Your task to perform on an android device: open chrome privacy settings Image 0: 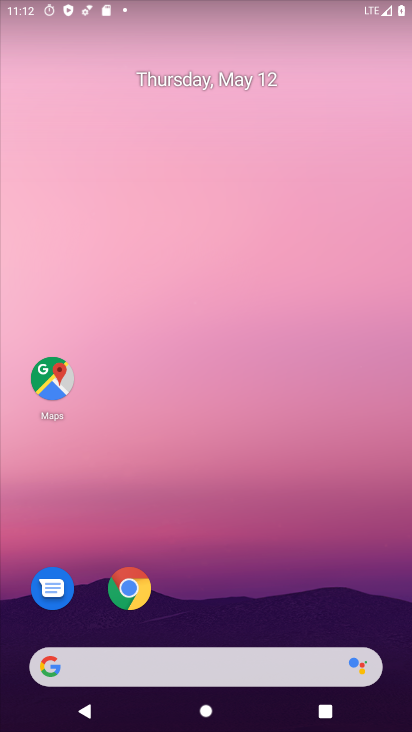
Step 0: drag from (289, 579) to (295, 61)
Your task to perform on an android device: open chrome privacy settings Image 1: 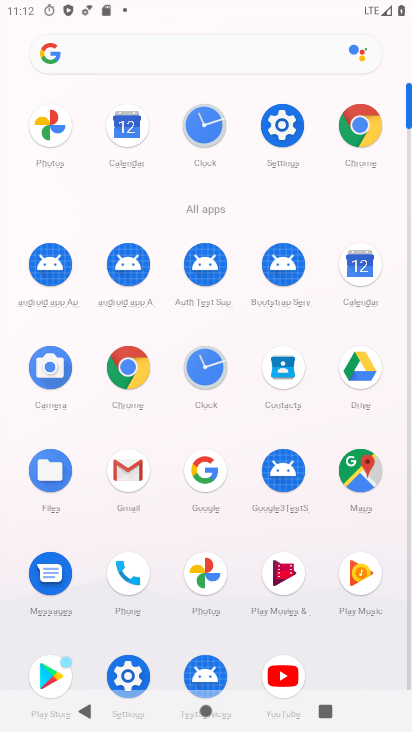
Step 1: click (280, 122)
Your task to perform on an android device: open chrome privacy settings Image 2: 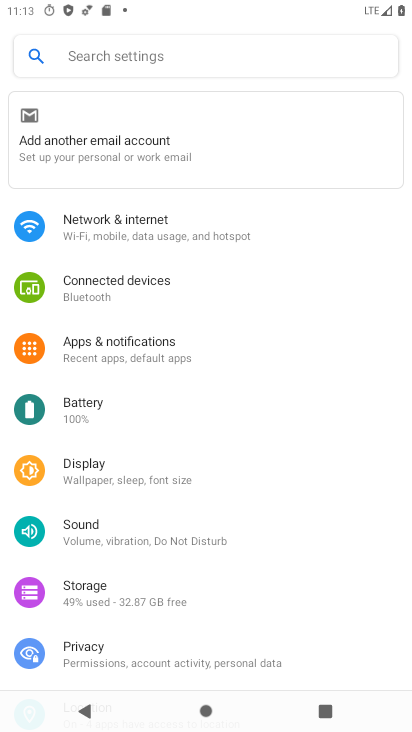
Step 2: drag from (235, 578) to (293, 103)
Your task to perform on an android device: open chrome privacy settings Image 3: 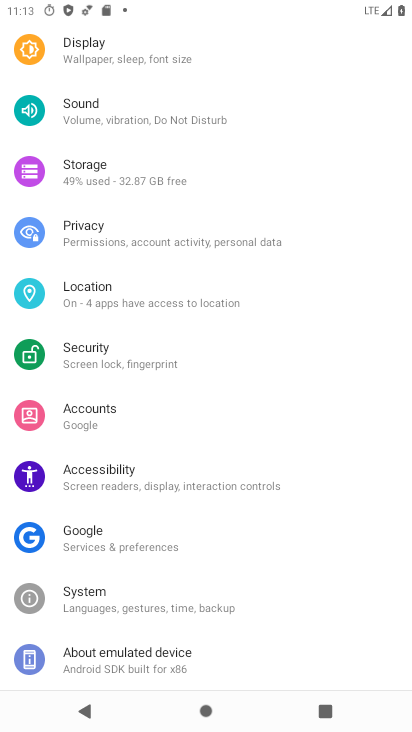
Step 3: drag from (175, 180) to (200, 563)
Your task to perform on an android device: open chrome privacy settings Image 4: 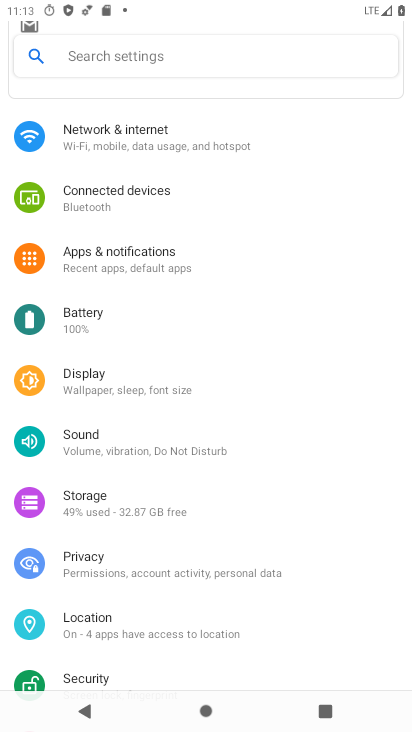
Step 4: click (123, 243)
Your task to perform on an android device: open chrome privacy settings Image 5: 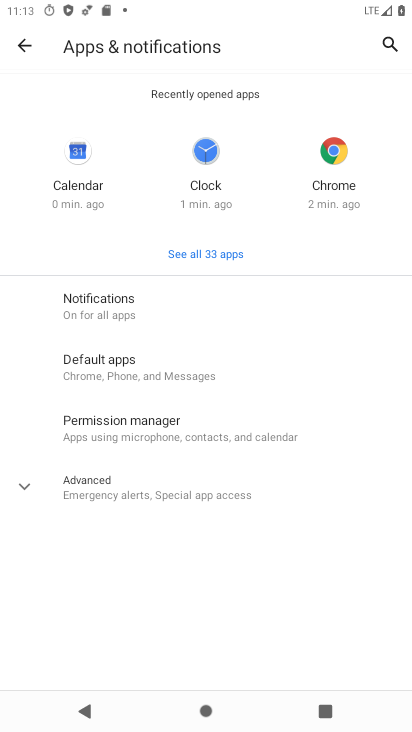
Step 5: click (338, 158)
Your task to perform on an android device: open chrome privacy settings Image 6: 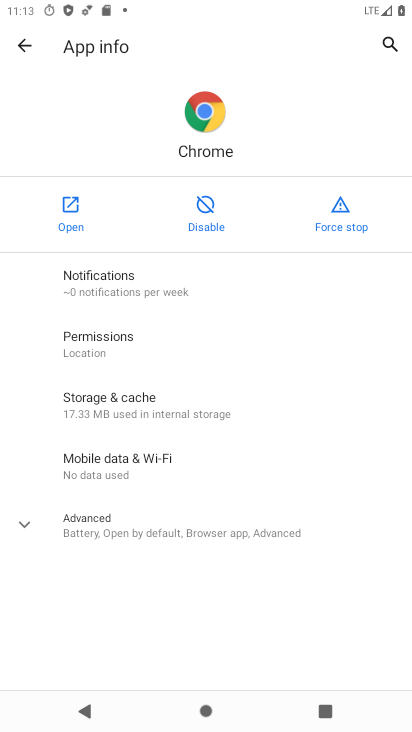
Step 6: click (68, 219)
Your task to perform on an android device: open chrome privacy settings Image 7: 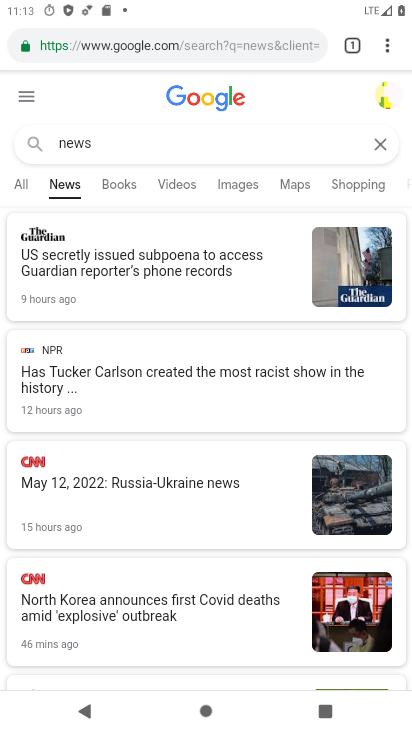
Step 7: click (393, 38)
Your task to perform on an android device: open chrome privacy settings Image 8: 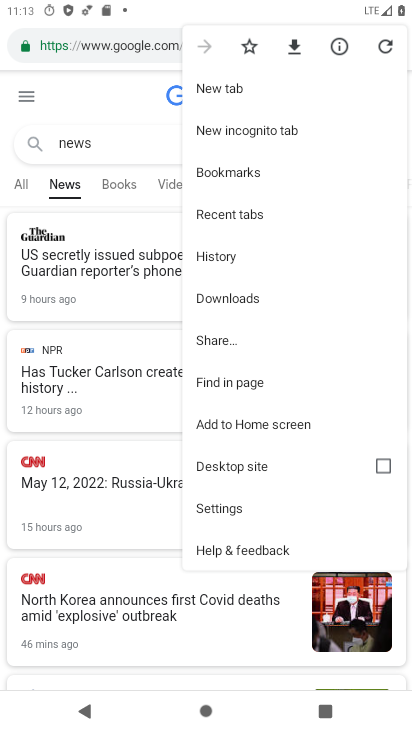
Step 8: click (234, 504)
Your task to perform on an android device: open chrome privacy settings Image 9: 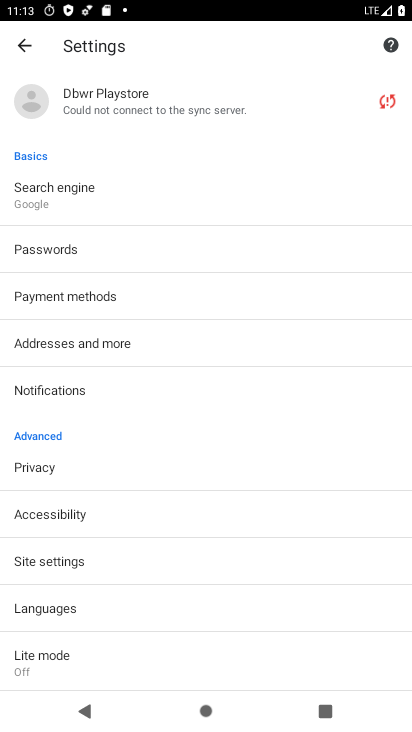
Step 9: drag from (170, 606) to (257, 180)
Your task to perform on an android device: open chrome privacy settings Image 10: 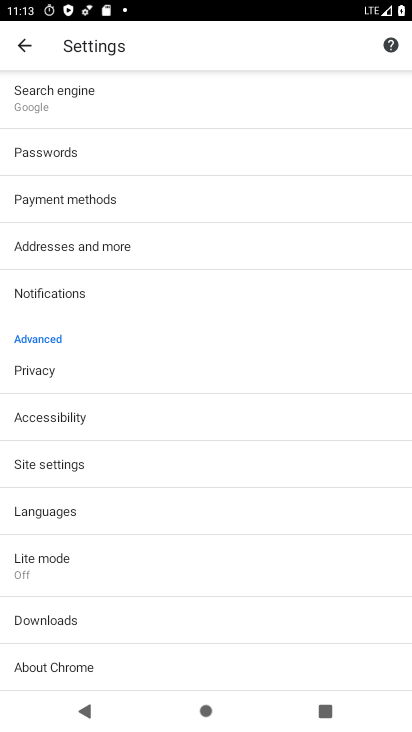
Step 10: click (109, 368)
Your task to perform on an android device: open chrome privacy settings Image 11: 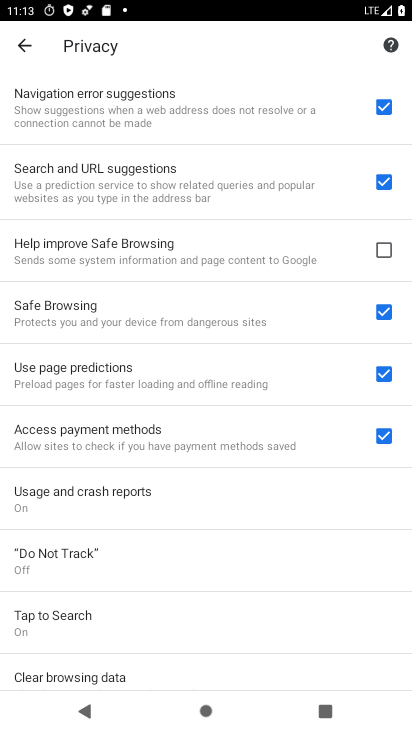
Step 11: task complete